Your task to perform on an android device: Do I have any events tomorrow? Image 0: 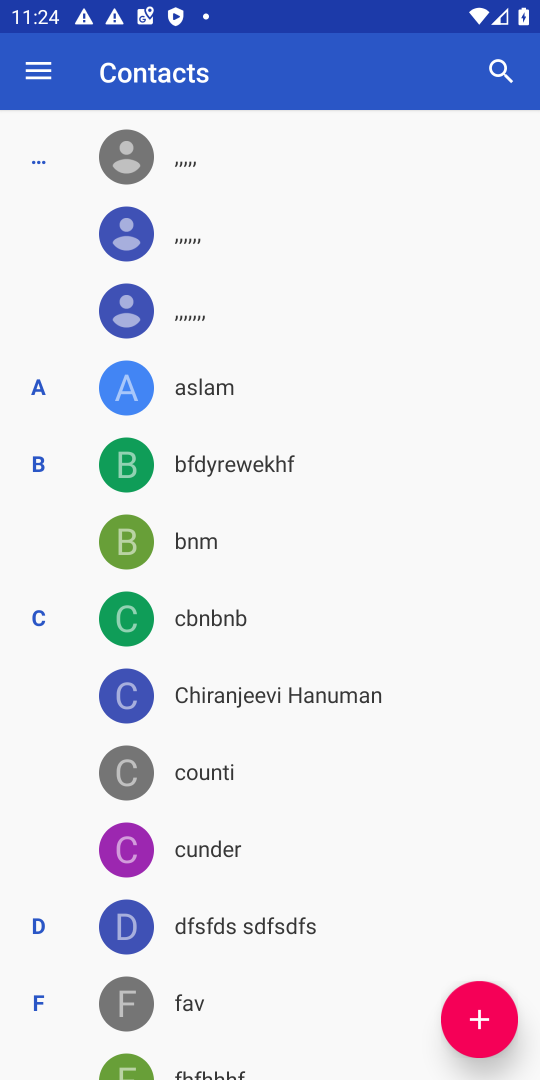
Step 0: press home button
Your task to perform on an android device: Do I have any events tomorrow? Image 1: 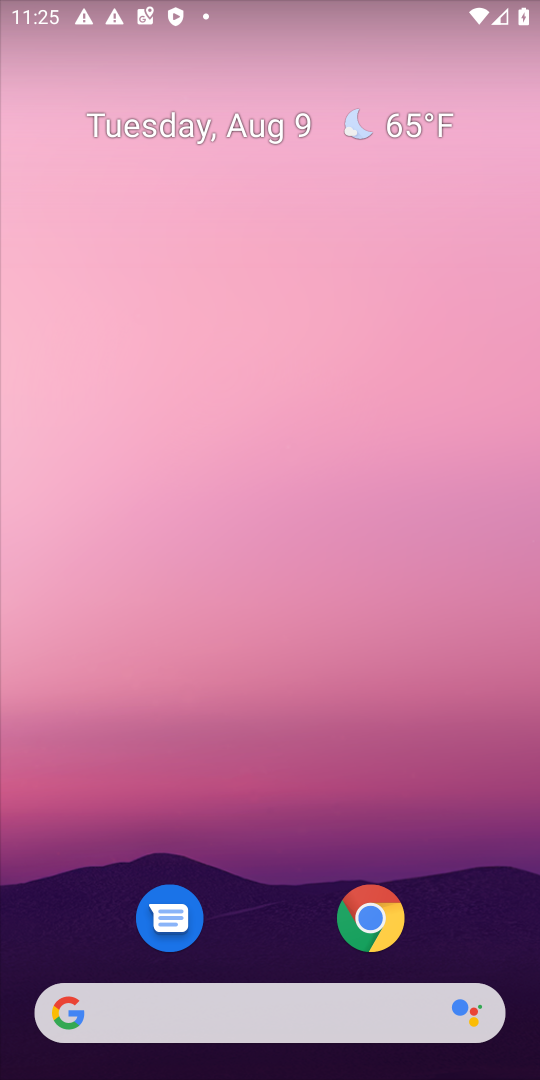
Step 1: drag from (287, 857) to (305, 97)
Your task to perform on an android device: Do I have any events tomorrow? Image 2: 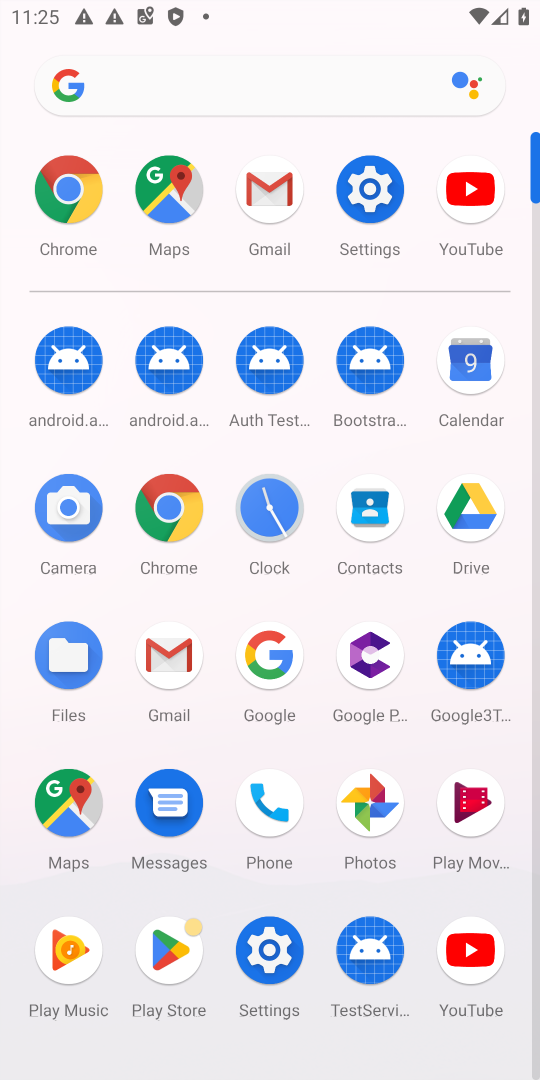
Step 2: click (482, 352)
Your task to perform on an android device: Do I have any events tomorrow? Image 3: 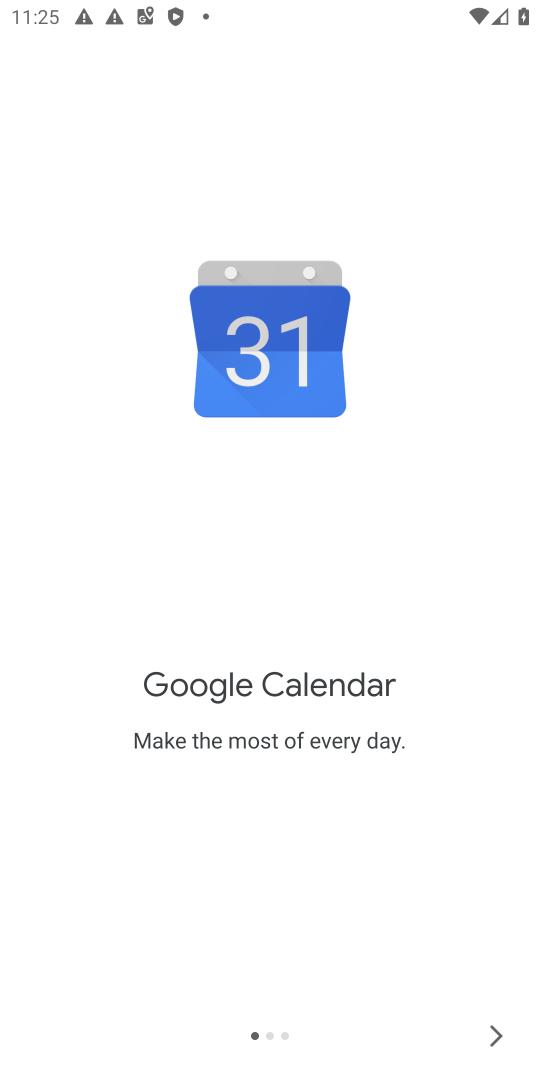
Step 3: click (496, 1030)
Your task to perform on an android device: Do I have any events tomorrow? Image 4: 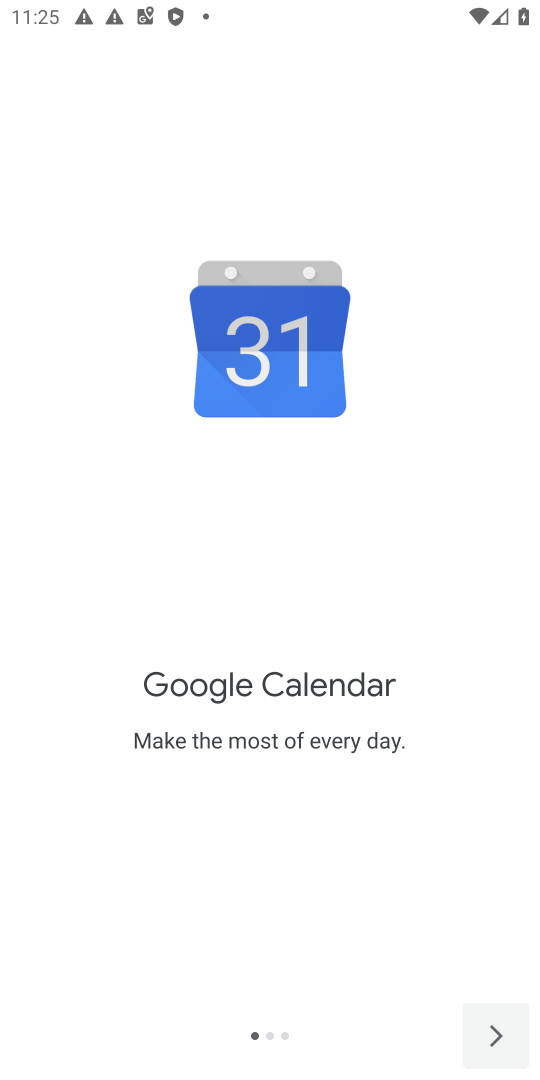
Step 4: click (496, 1028)
Your task to perform on an android device: Do I have any events tomorrow? Image 5: 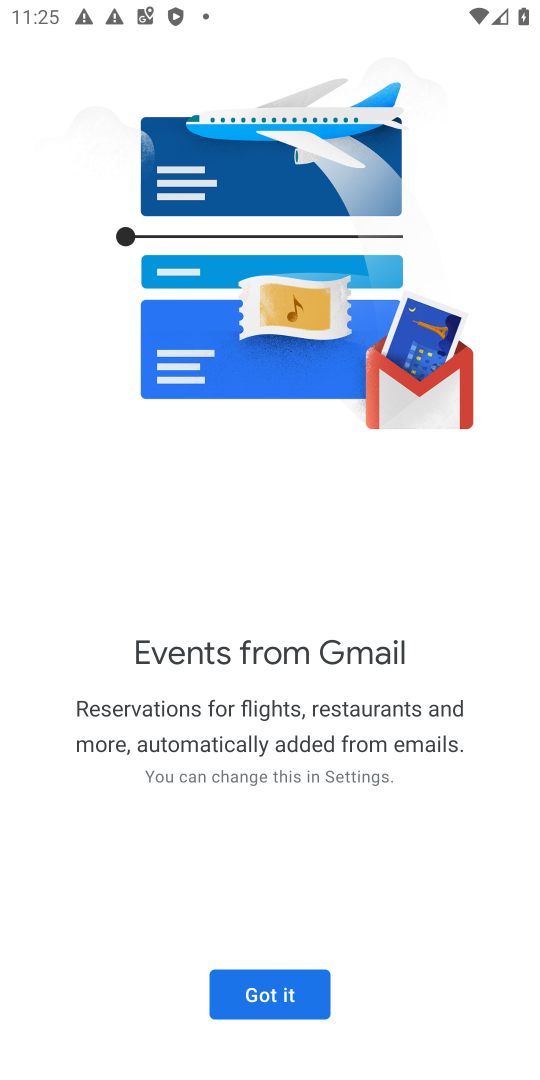
Step 5: click (230, 984)
Your task to perform on an android device: Do I have any events tomorrow? Image 6: 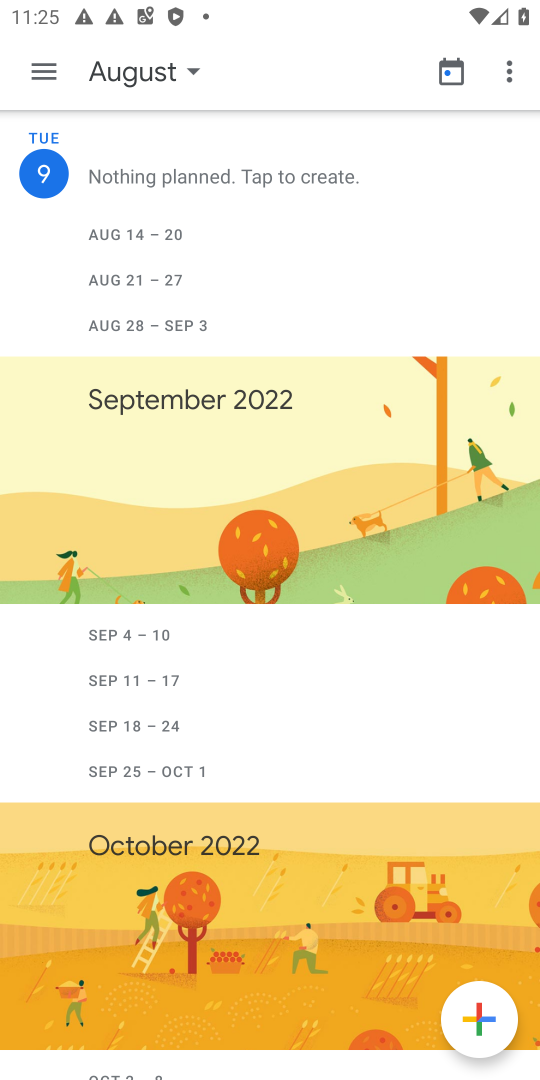
Step 6: click (132, 65)
Your task to perform on an android device: Do I have any events tomorrow? Image 7: 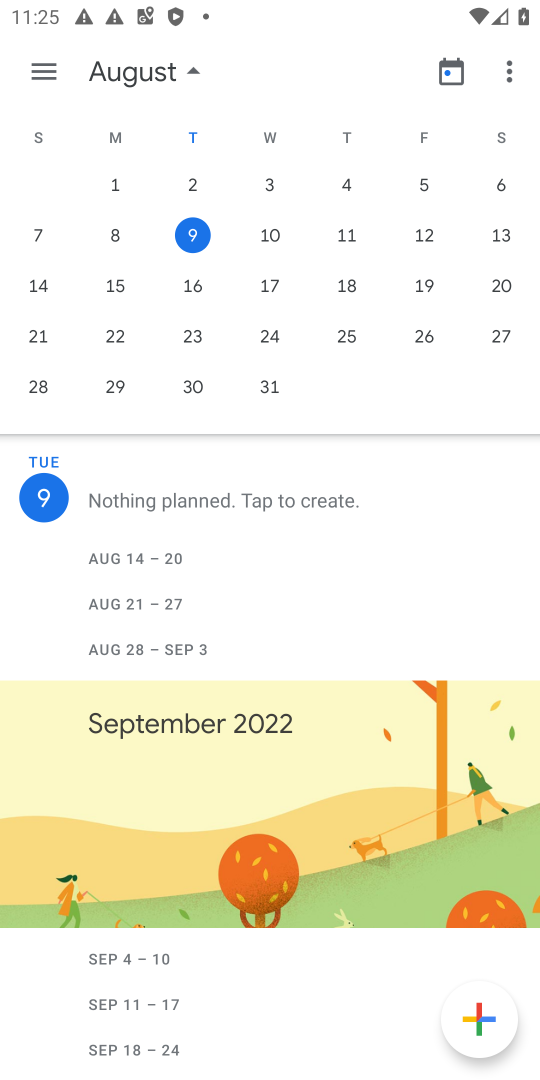
Step 7: click (270, 241)
Your task to perform on an android device: Do I have any events tomorrow? Image 8: 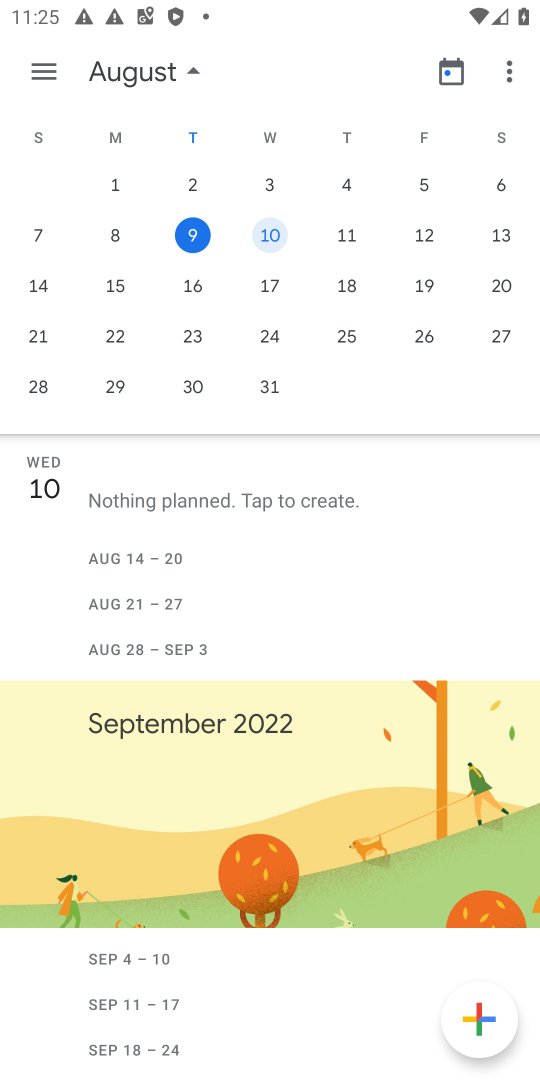
Step 8: task complete